Your task to perform on an android device: turn off translation in the chrome app Image 0: 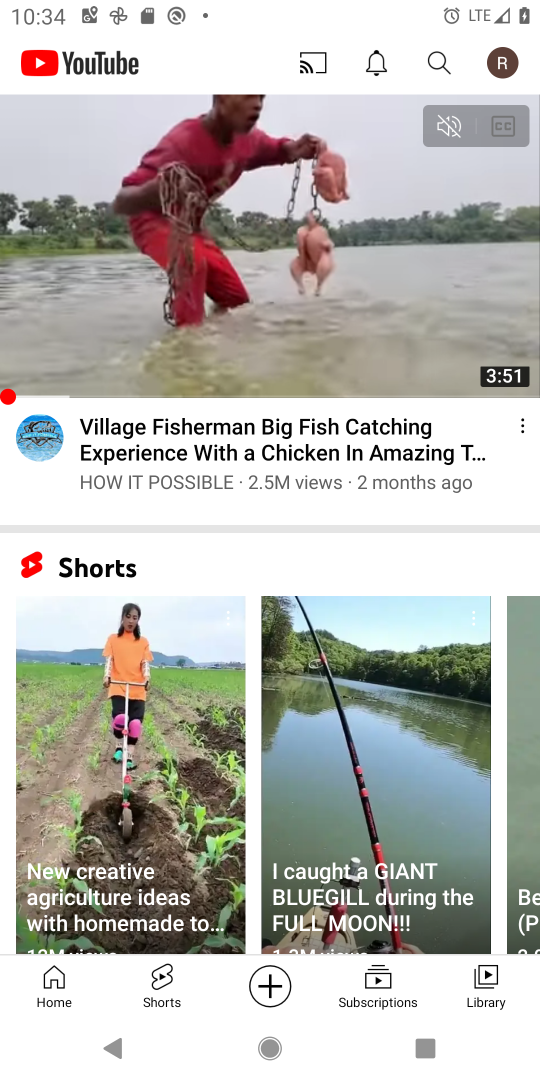
Step 0: press home button
Your task to perform on an android device: turn off translation in the chrome app Image 1: 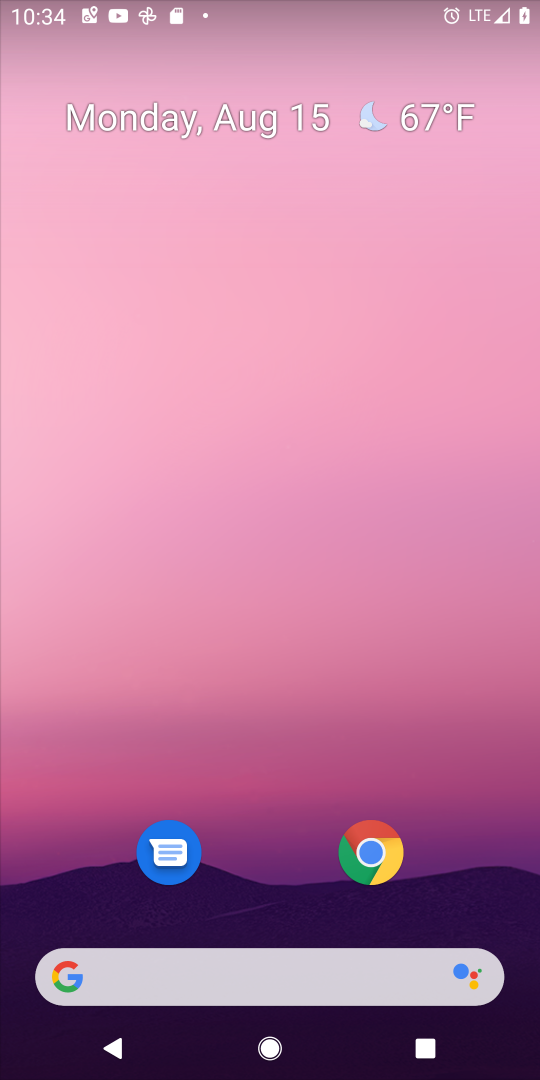
Step 1: click (367, 852)
Your task to perform on an android device: turn off translation in the chrome app Image 2: 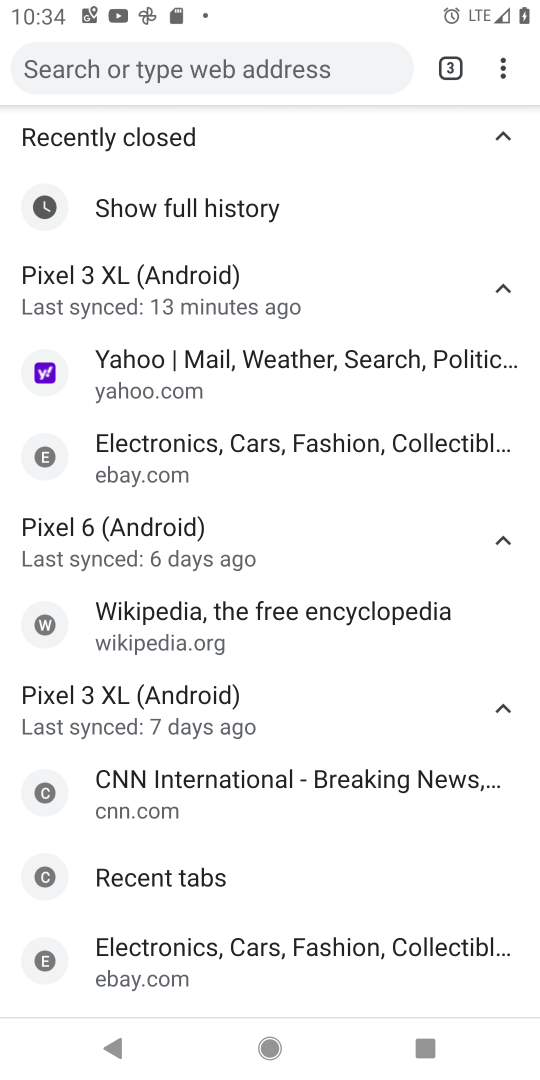
Step 2: click (516, 76)
Your task to perform on an android device: turn off translation in the chrome app Image 3: 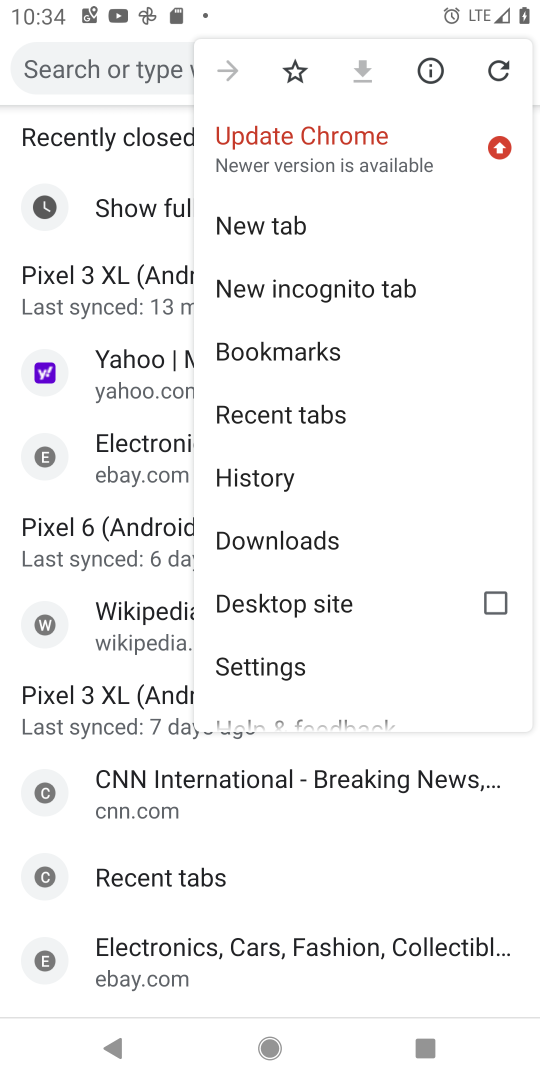
Step 3: click (270, 665)
Your task to perform on an android device: turn off translation in the chrome app Image 4: 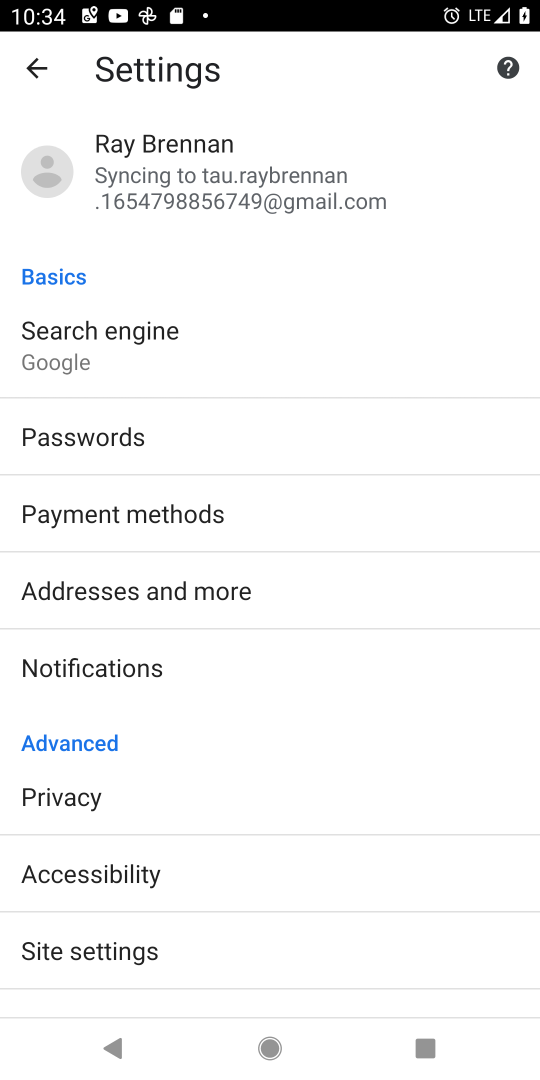
Step 4: drag from (155, 852) to (226, 638)
Your task to perform on an android device: turn off translation in the chrome app Image 5: 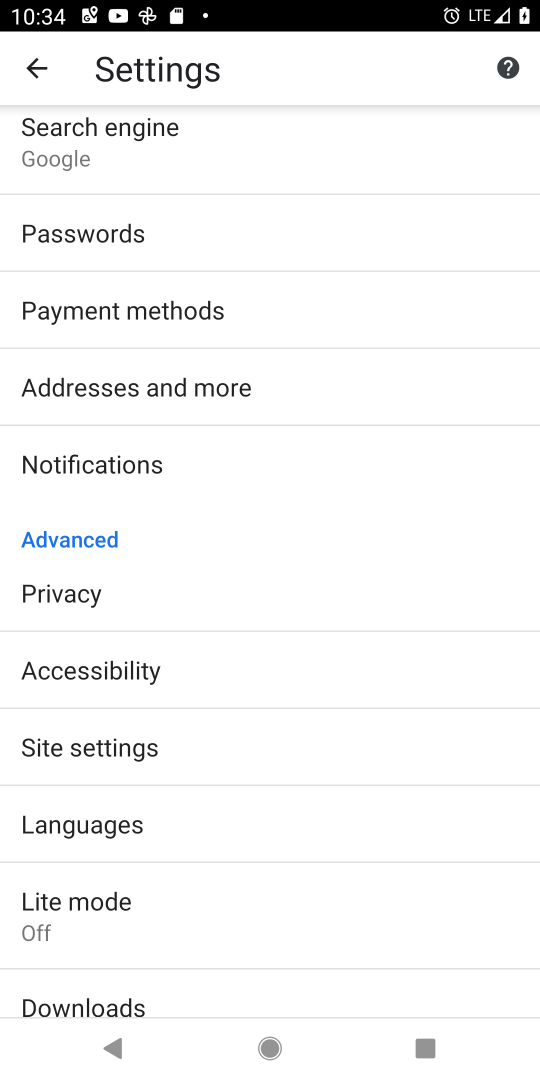
Step 5: click (93, 833)
Your task to perform on an android device: turn off translation in the chrome app Image 6: 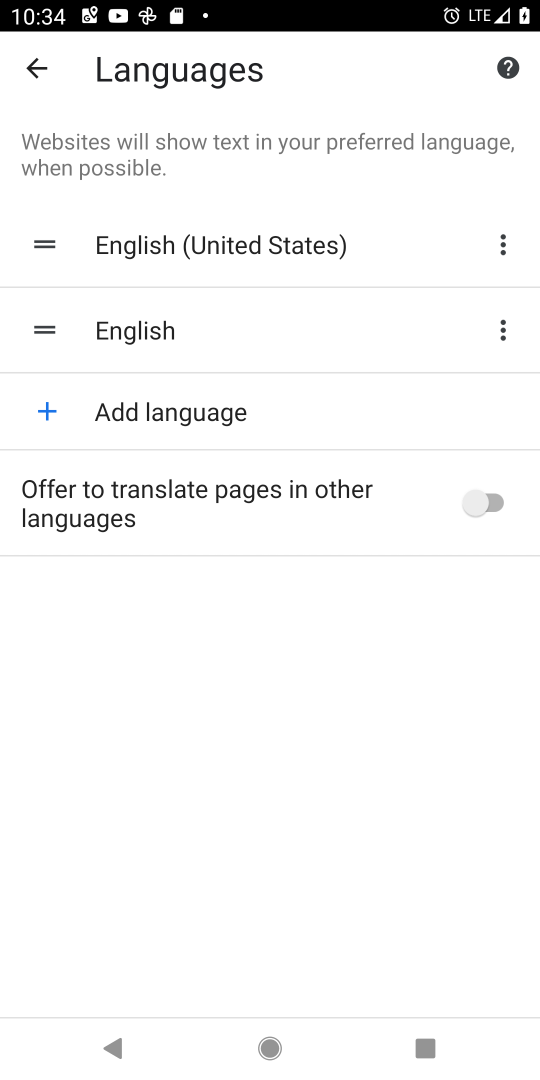
Step 6: task complete